Your task to perform on an android device: Go to settings Image 0: 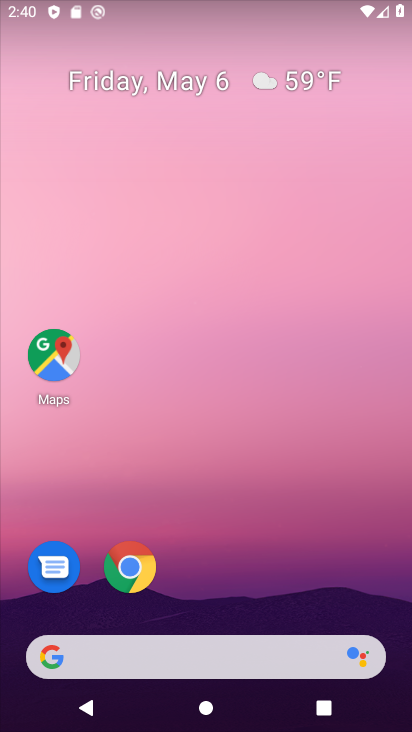
Step 0: drag from (187, 635) to (317, 89)
Your task to perform on an android device: Go to settings Image 1: 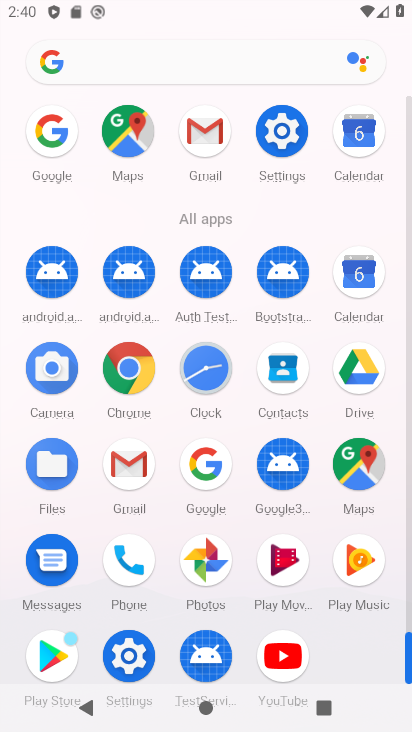
Step 1: click (130, 669)
Your task to perform on an android device: Go to settings Image 2: 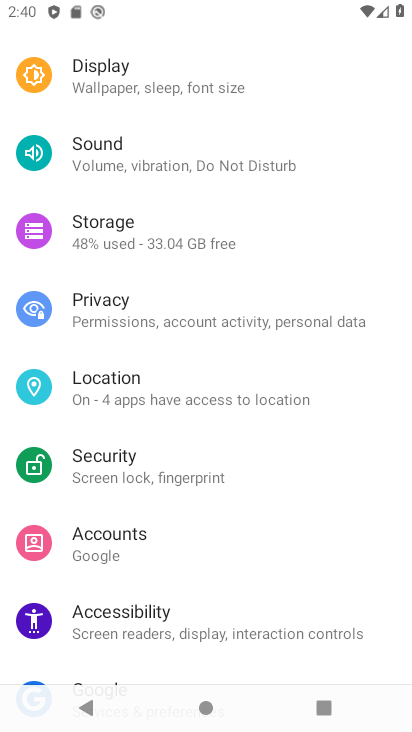
Step 2: task complete